Your task to perform on an android device: check the backup settings in the google photos Image 0: 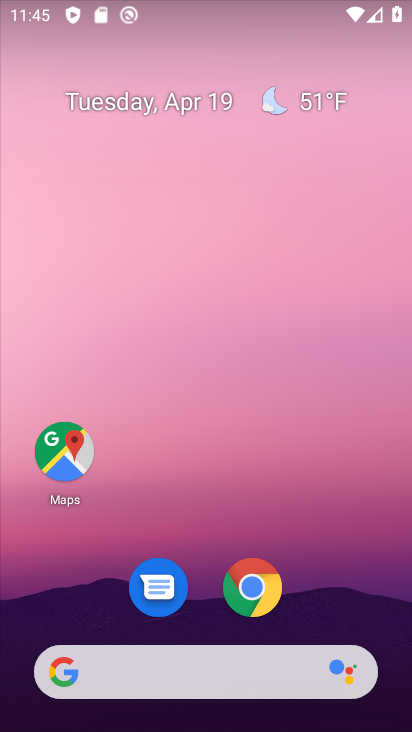
Step 0: drag from (198, 392) to (216, 136)
Your task to perform on an android device: check the backup settings in the google photos Image 1: 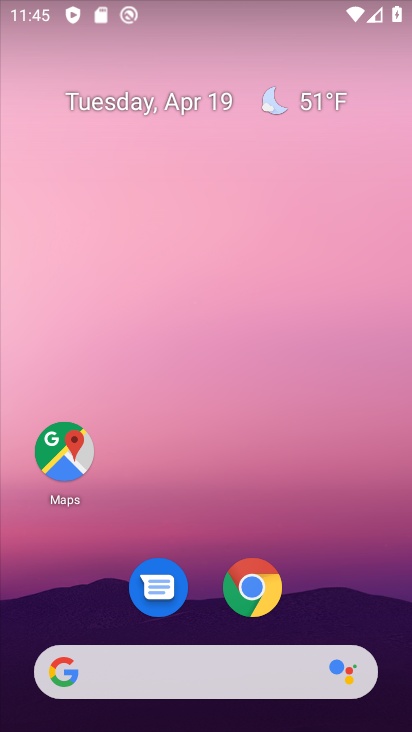
Step 1: drag from (165, 356) to (205, 37)
Your task to perform on an android device: check the backup settings in the google photos Image 2: 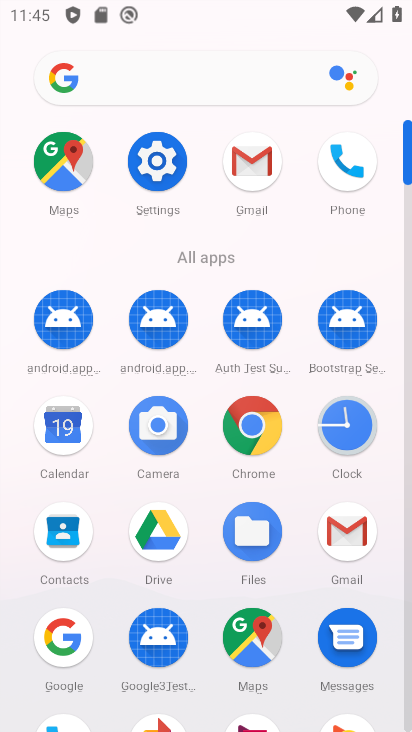
Step 2: drag from (189, 602) to (246, 100)
Your task to perform on an android device: check the backup settings in the google photos Image 3: 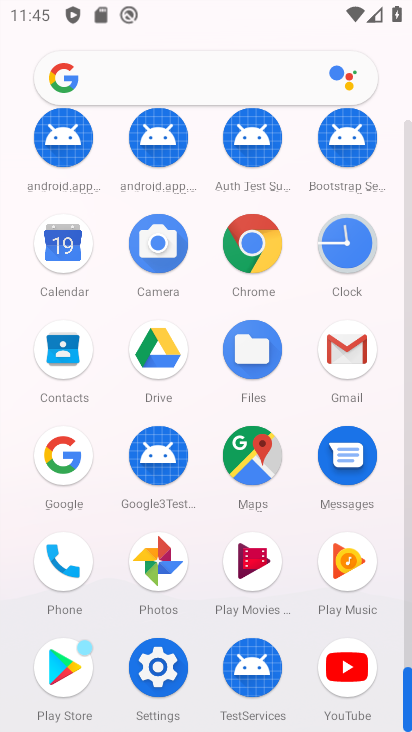
Step 3: click (155, 562)
Your task to perform on an android device: check the backup settings in the google photos Image 4: 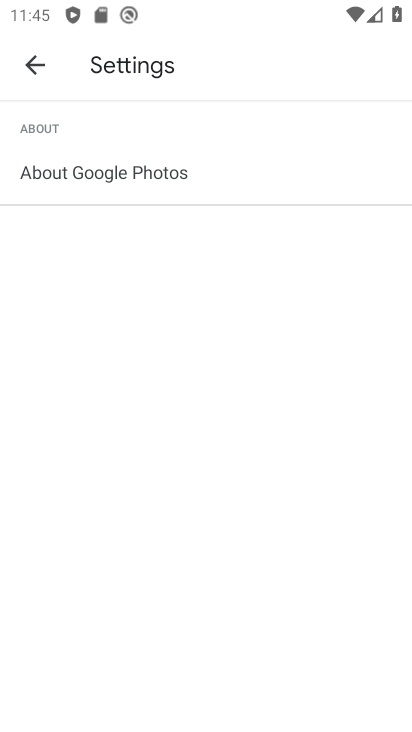
Step 4: click (22, 72)
Your task to perform on an android device: check the backup settings in the google photos Image 5: 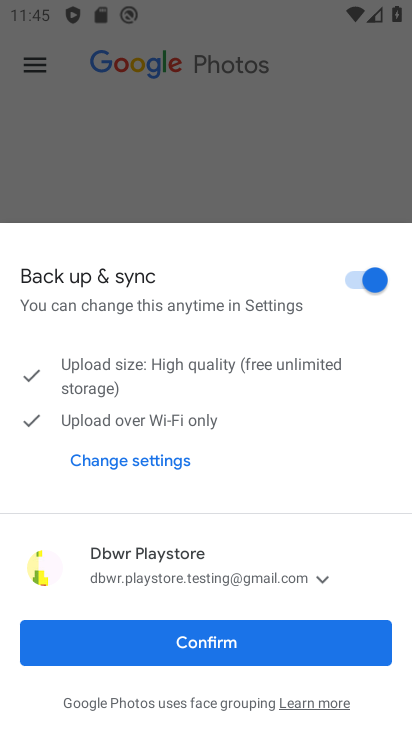
Step 5: click (29, 69)
Your task to perform on an android device: check the backup settings in the google photos Image 6: 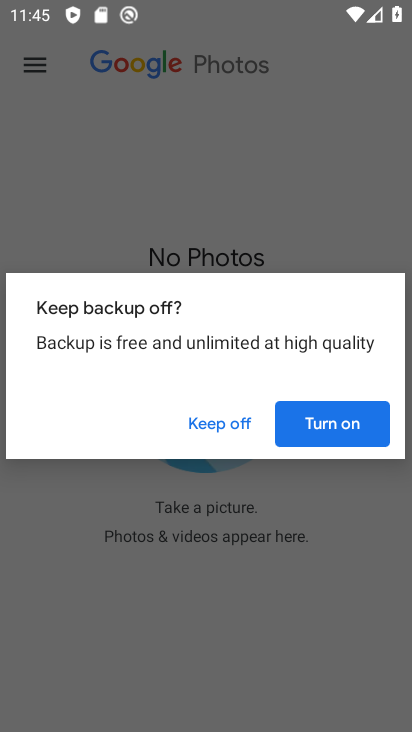
Step 6: click (304, 421)
Your task to perform on an android device: check the backup settings in the google photos Image 7: 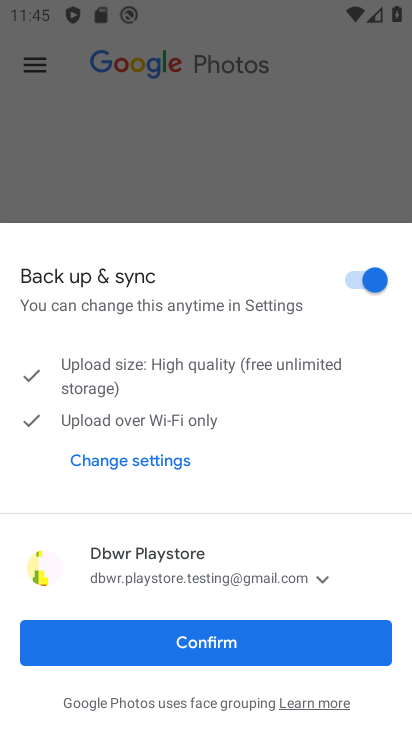
Step 7: click (208, 658)
Your task to perform on an android device: check the backup settings in the google photos Image 8: 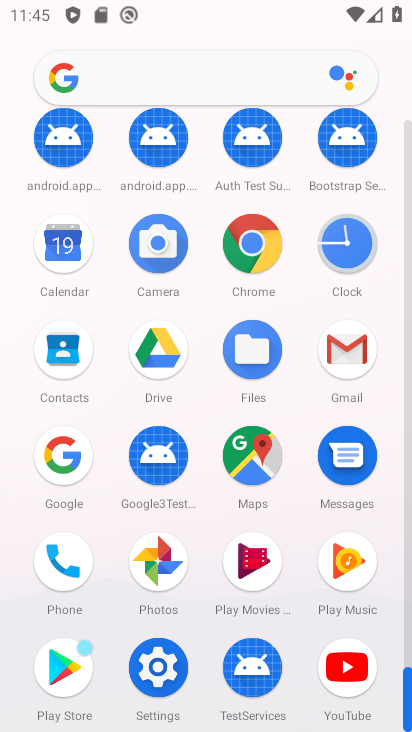
Step 8: task complete